Your task to perform on an android device: delete a single message in the gmail app Image 0: 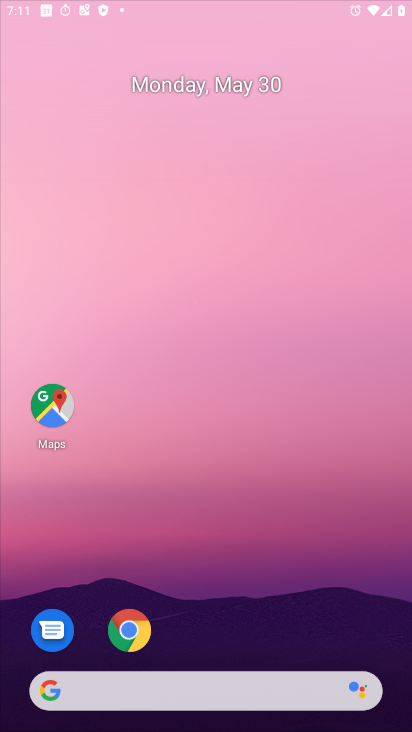
Step 0: drag from (361, 647) to (330, 37)
Your task to perform on an android device: delete a single message in the gmail app Image 1: 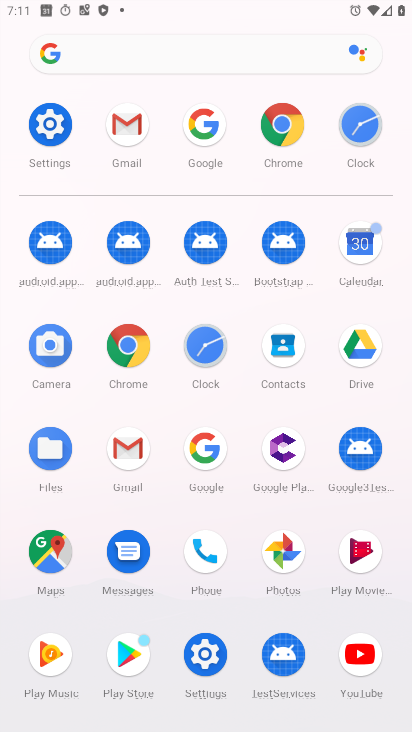
Step 1: click (151, 449)
Your task to perform on an android device: delete a single message in the gmail app Image 2: 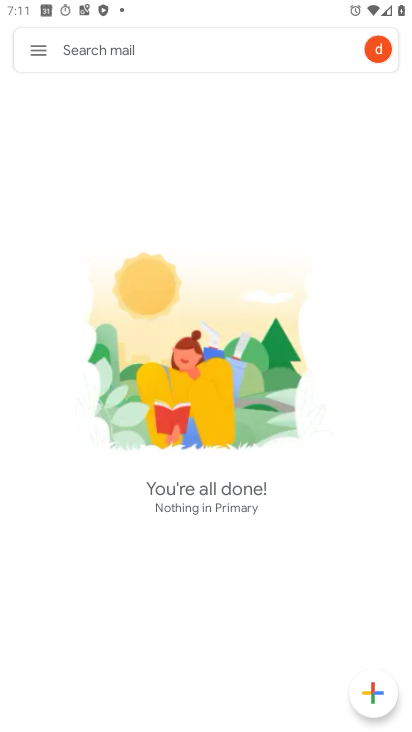
Step 2: click (34, 42)
Your task to perform on an android device: delete a single message in the gmail app Image 3: 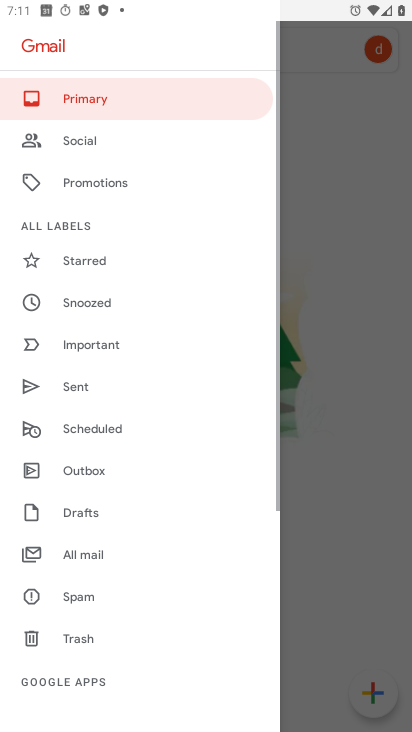
Step 3: click (95, 90)
Your task to perform on an android device: delete a single message in the gmail app Image 4: 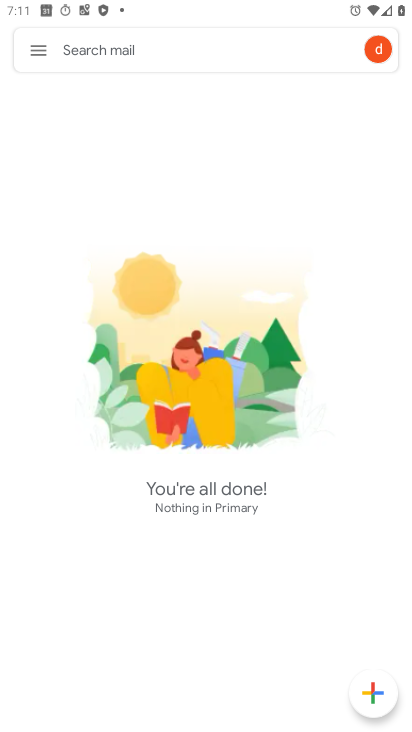
Step 4: task complete